Your task to perform on an android device: turn on data saver in the chrome app Image 0: 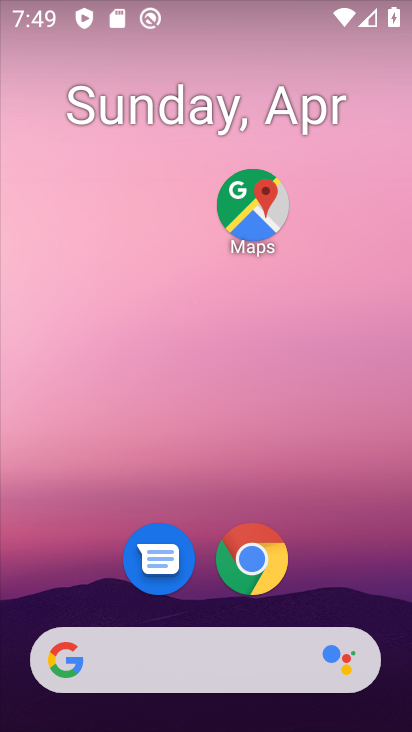
Step 0: click (268, 560)
Your task to perform on an android device: turn on data saver in the chrome app Image 1: 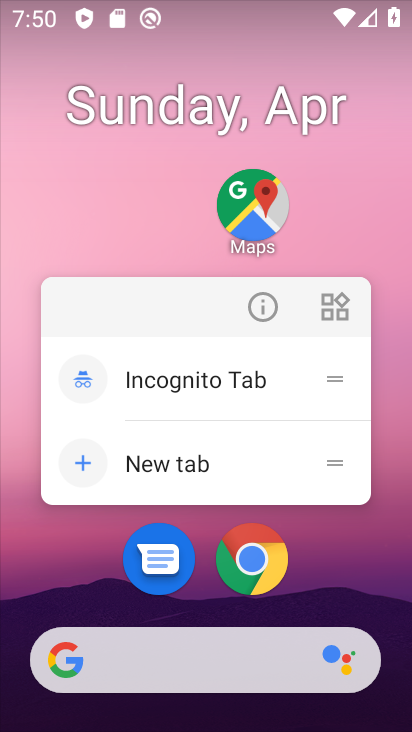
Step 1: click (256, 304)
Your task to perform on an android device: turn on data saver in the chrome app Image 2: 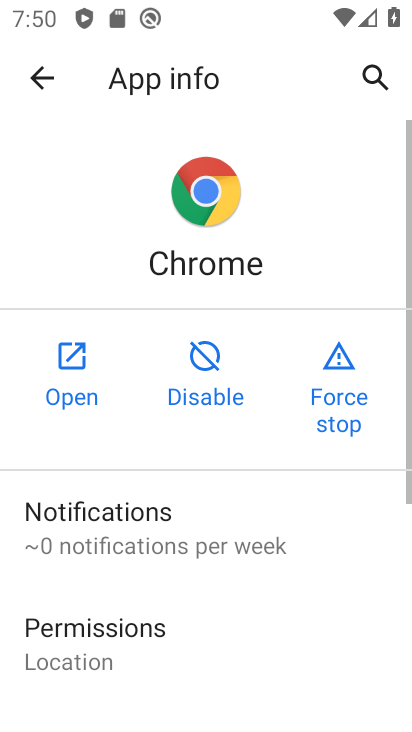
Step 2: click (76, 360)
Your task to perform on an android device: turn on data saver in the chrome app Image 3: 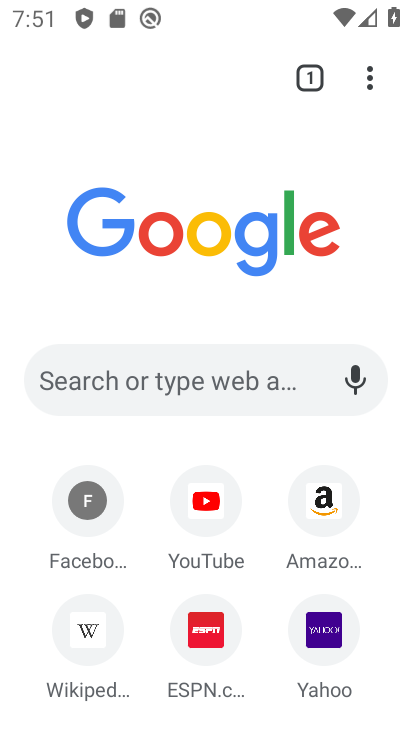
Step 3: click (356, 78)
Your task to perform on an android device: turn on data saver in the chrome app Image 4: 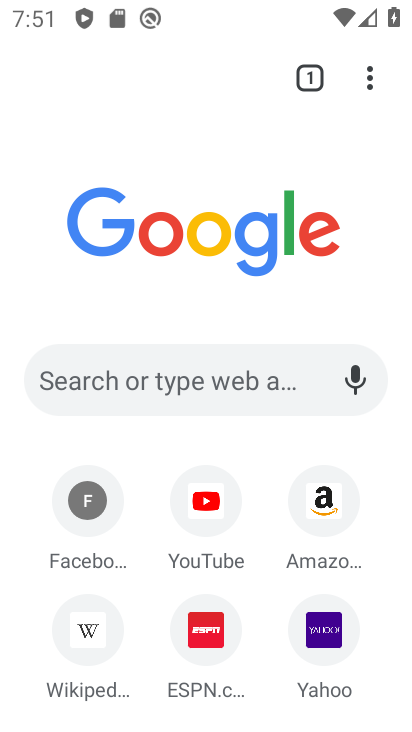
Step 4: drag from (402, 127) to (359, 62)
Your task to perform on an android device: turn on data saver in the chrome app Image 5: 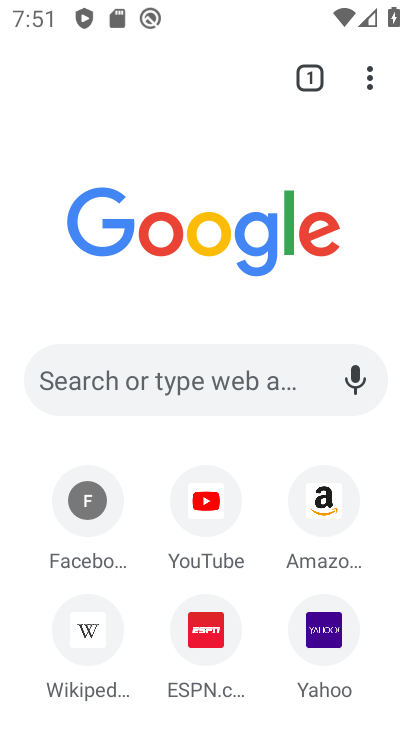
Step 5: click (361, 65)
Your task to perform on an android device: turn on data saver in the chrome app Image 6: 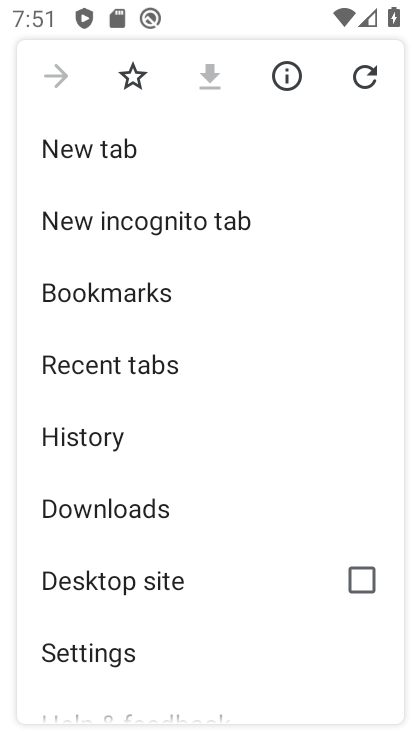
Step 6: drag from (173, 667) to (247, 199)
Your task to perform on an android device: turn on data saver in the chrome app Image 7: 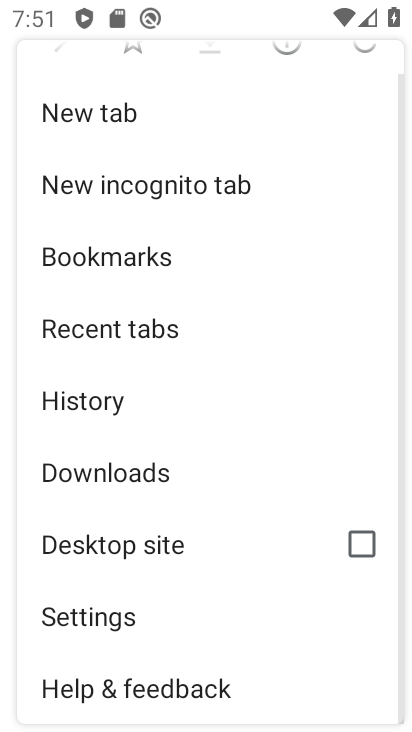
Step 7: click (122, 616)
Your task to perform on an android device: turn on data saver in the chrome app Image 8: 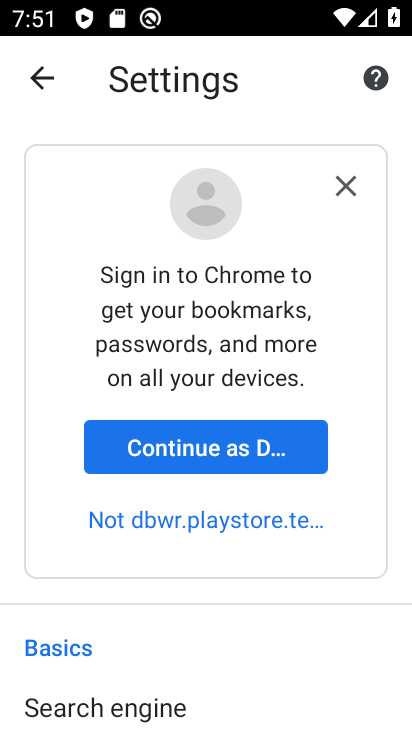
Step 8: click (353, 177)
Your task to perform on an android device: turn on data saver in the chrome app Image 9: 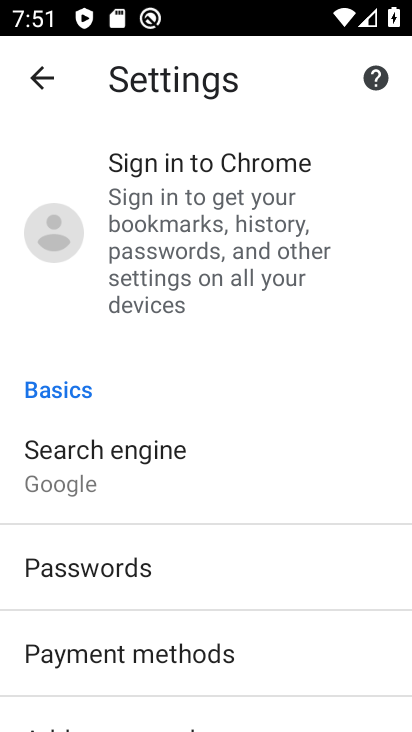
Step 9: drag from (157, 636) to (225, 273)
Your task to perform on an android device: turn on data saver in the chrome app Image 10: 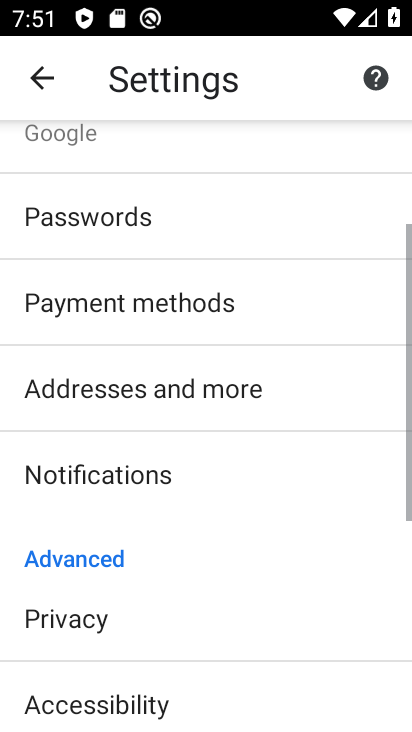
Step 10: drag from (231, 684) to (309, 247)
Your task to perform on an android device: turn on data saver in the chrome app Image 11: 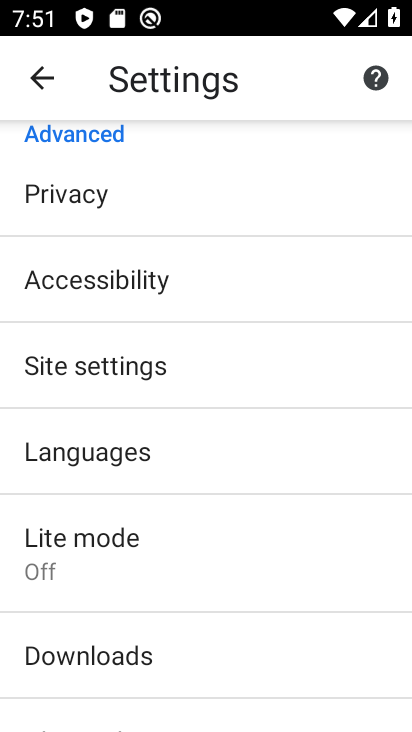
Step 11: click (188, 533)
Your task to perform on an android device: turn on data saver in the chrome app Image 12: 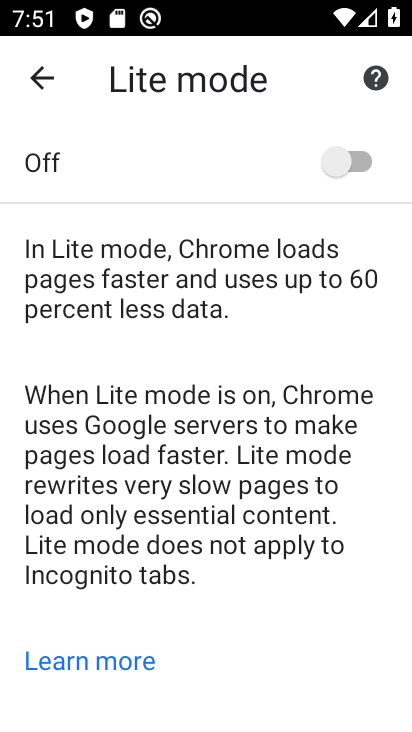
Step 12: click (346, 155)
Your task to perform on an android device: turn on data saver in the chrome app Image 13: 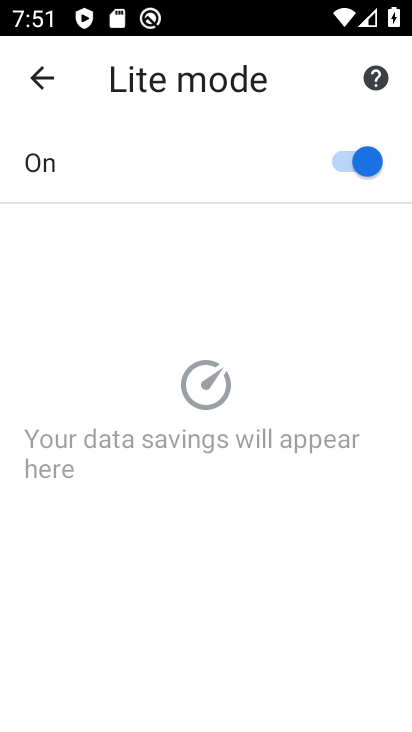
Step 13: task complete